Your task to perform on an android device: Search for pizza restaurants on Maps Image 0: 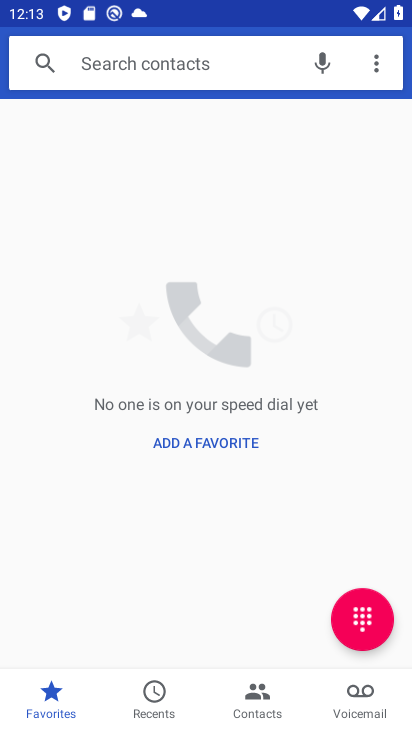
Step 0: press home button
Your task to perform on an android device: Search for pizza restaurants on Maps Image 1: 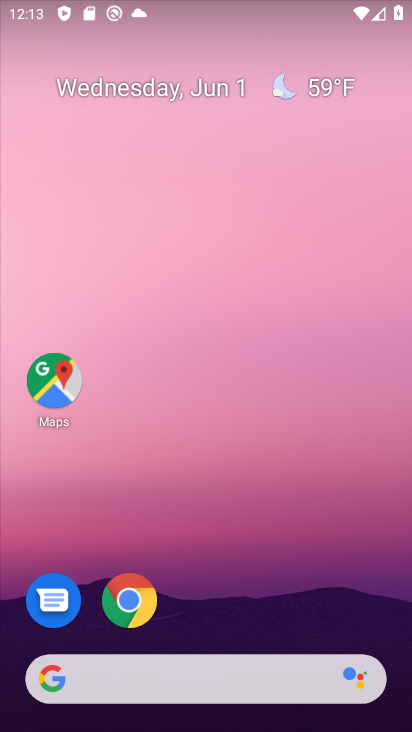
Step 1: click (58, 372)
Your task to perform on an android device: Search for pizza restaurants on Maps Image 2: 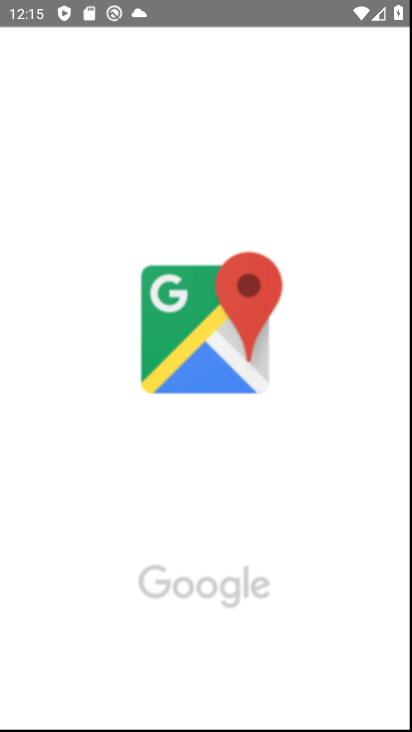
Step 2: task complete